Your task to perform on an android device: What's the weather today? Image 0: 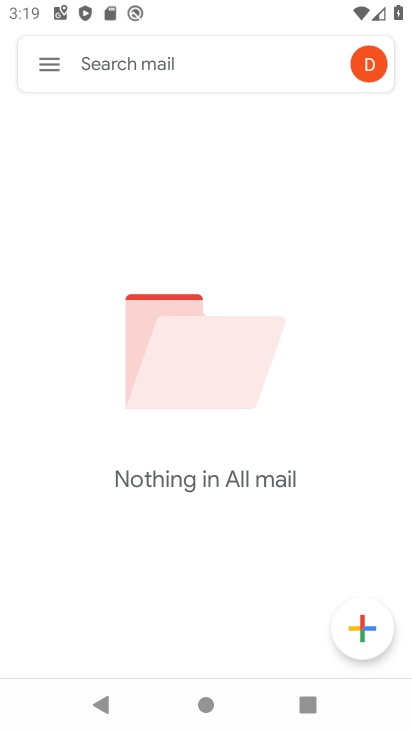
Step 0: press home button
Your task to perform on an android device: What's the weather today? Image 1: 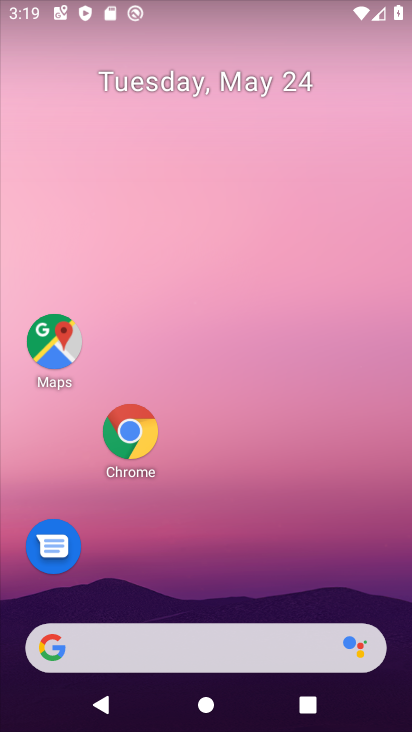
Step 1: drag from (131, 570) to (249, 0)
Your task to perform on an android device: What's the weather today? Image 2: 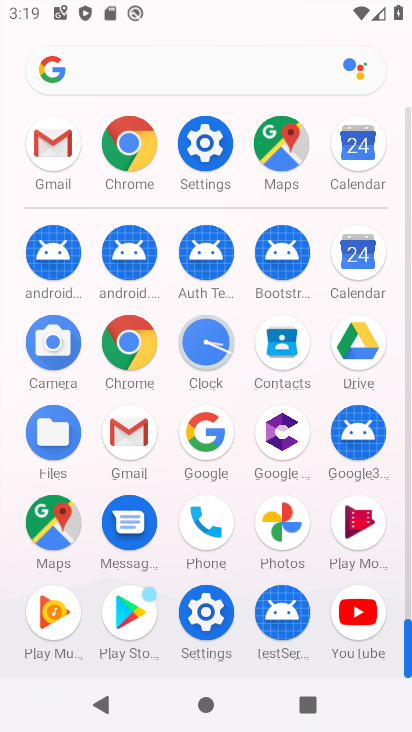
Step 2: click (155, 65)
Your task to perform on an android device: What's the weather today? Image 3: 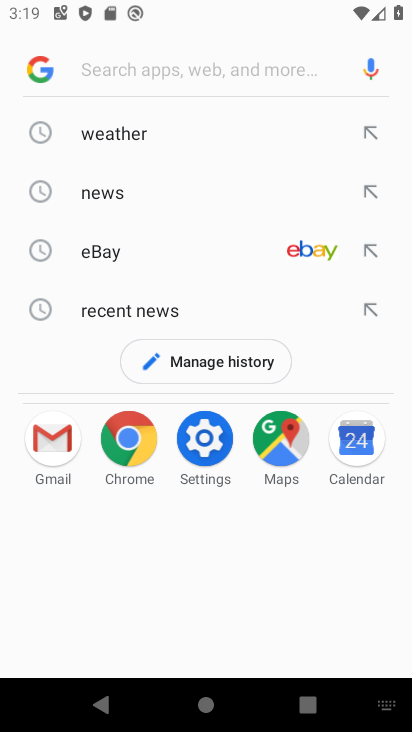
Step 3: click (104, 138)
Your task to perform on an android device: What's the weather today? Image 4: 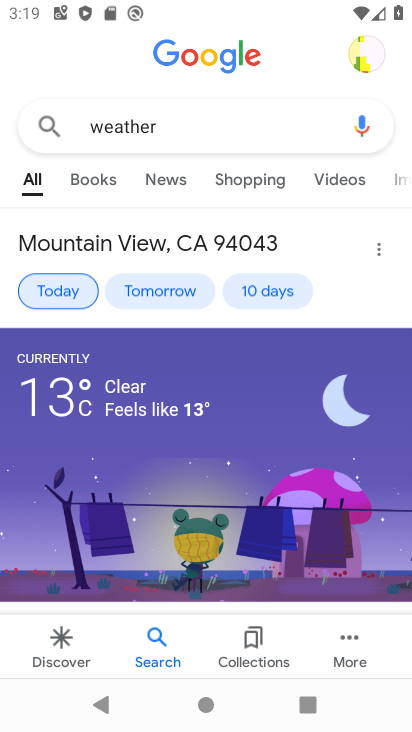
Step 4: task complete